Your task to perform on an android device: toggle notification dots Image 0: 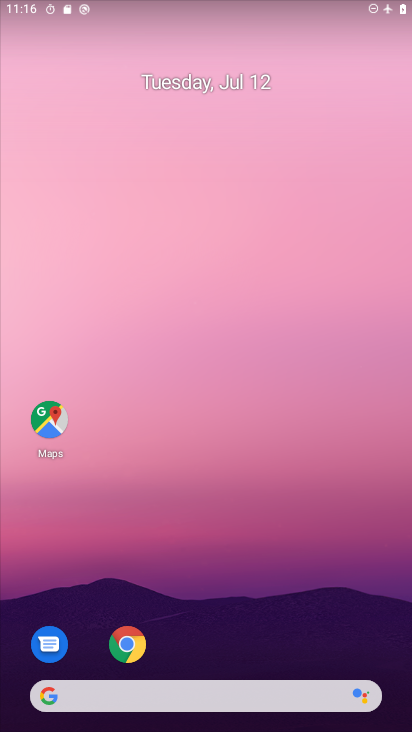
Step 0: drag from (257, 646) to (236, 183)
Your task to perform on an android device: toggle notification dots Image 1: 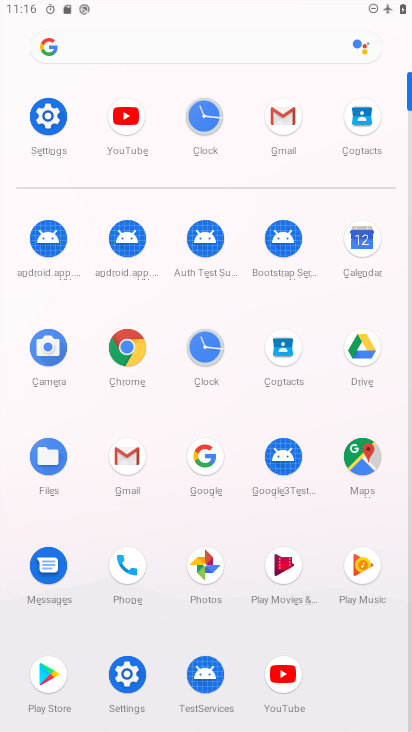
Step 1: click (59, 136)
Your task to perform on an android device: toggle notification dots Image 2: 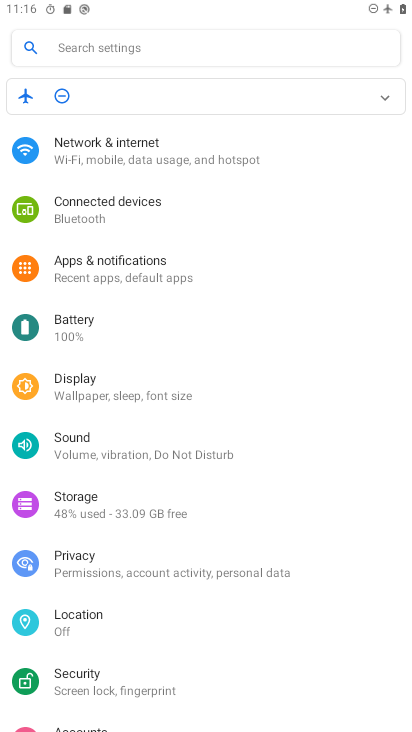
Step 2: click (164, 268)
Your task to perform on an android device: toggle notification dots Image 3: 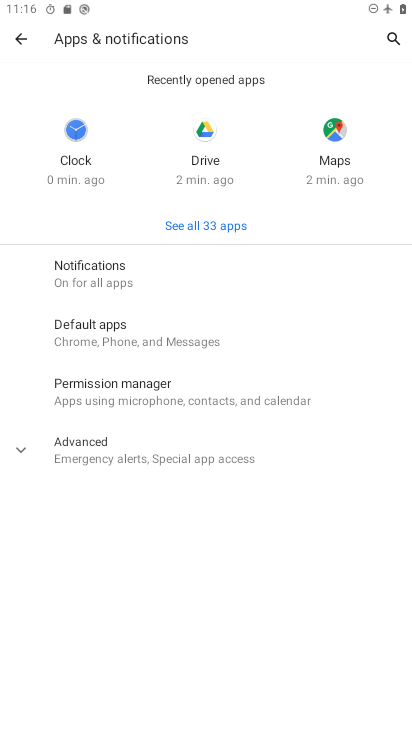
Step 3: click (166, 297)
Your task to perform on an android device: toggle notification dots Image 4: 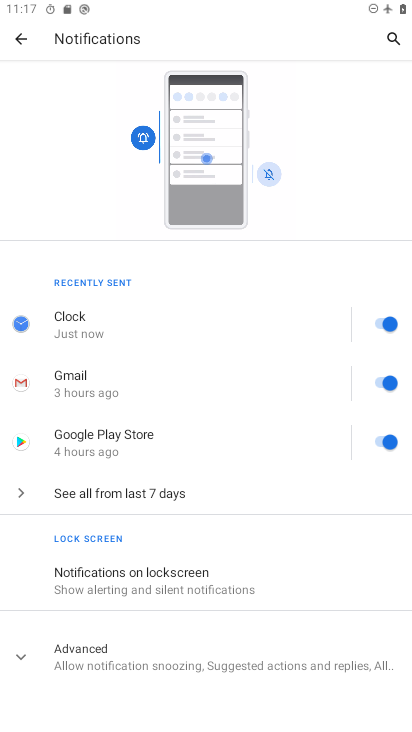
Step 4: click (162, 655)
Your task to perform on an android device: toggle notification dots Image 5: 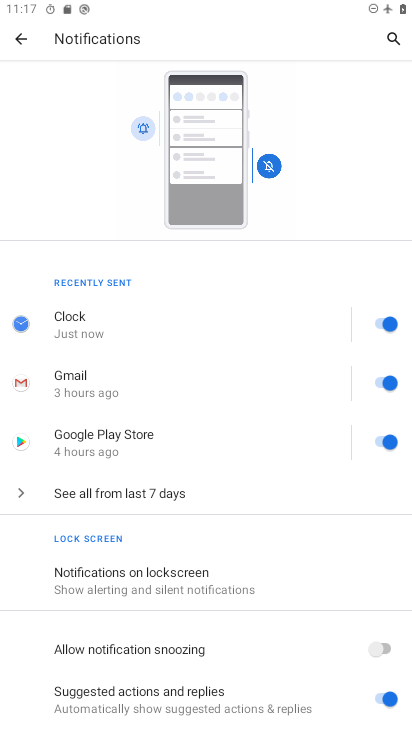
Step 5: drag from (252, 640) to (233, 381)
Your task to perform on an android device: toggle notification dots Image 6: 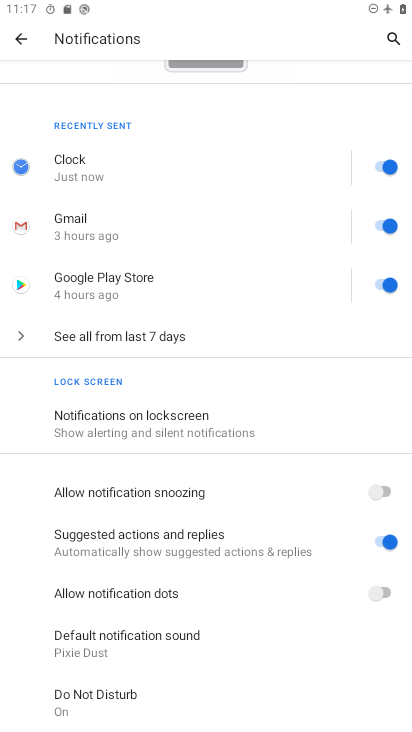
Step 6: click (386, 587)
Your task to perform on an android device: toggle notification dots Image 7: 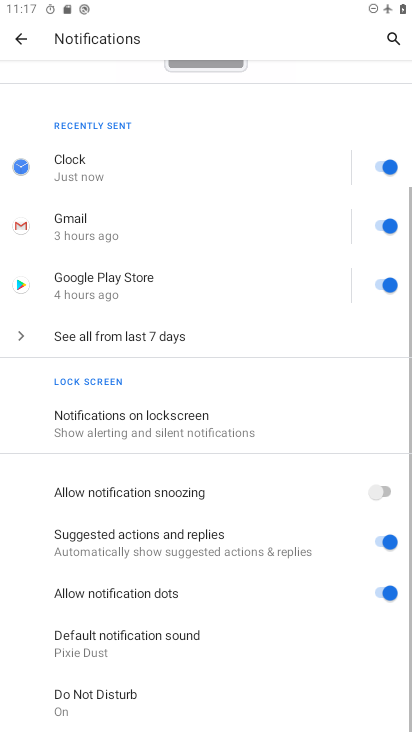
Step 7: task complete